Your task to perform on an android device: Open location settings Image 0: 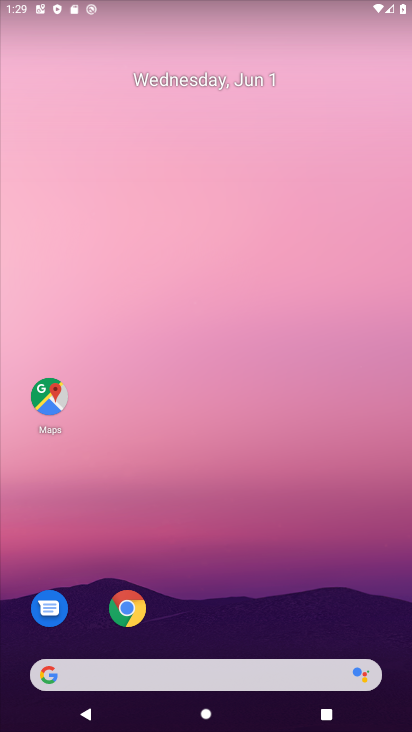
Step 0: drag from (254, 619) to (369, 0)
Your task to perform on an android device: Open location settings Image 1: 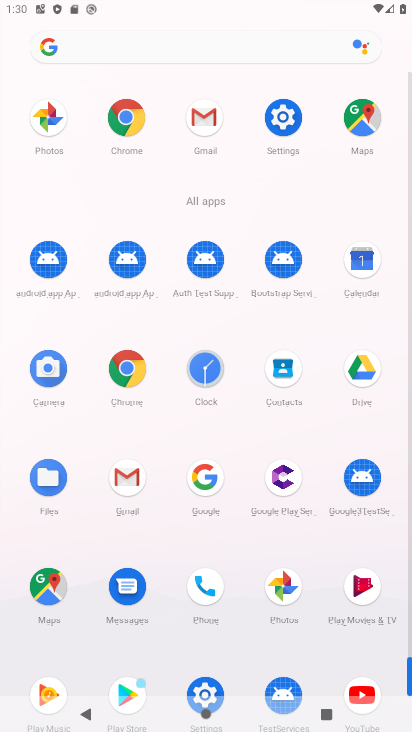
Step 1: click (277, 122)
Your task to perform on an android device: Open location settings Image 2: 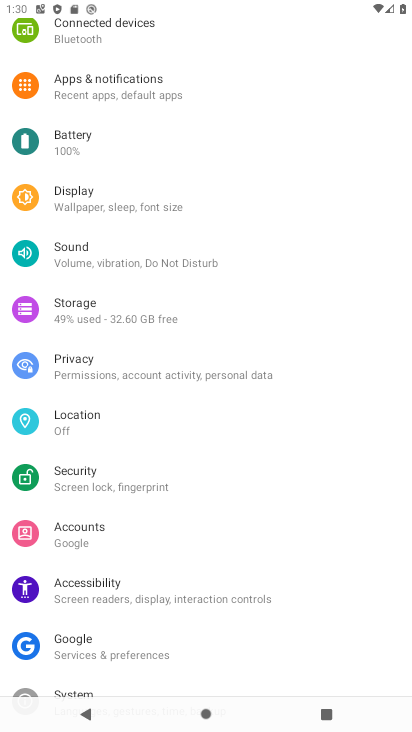
Step 2: click (85, 430)
Your task to perform on an android device: Open location settings Image 3: 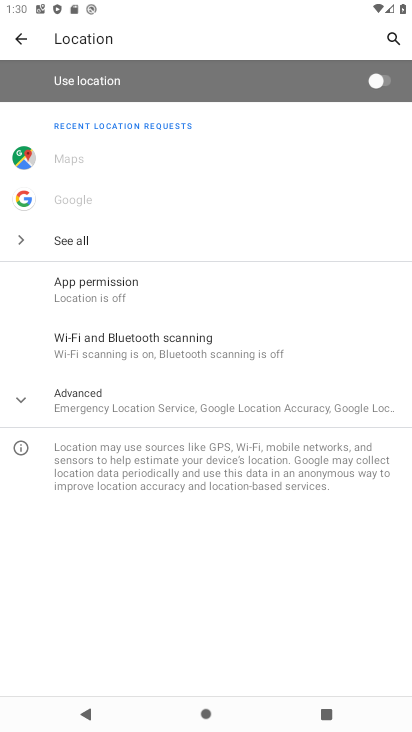
Step 3: task complete